Your task to perform on an android device: What's the weather going to be tomorrow? Image 0: 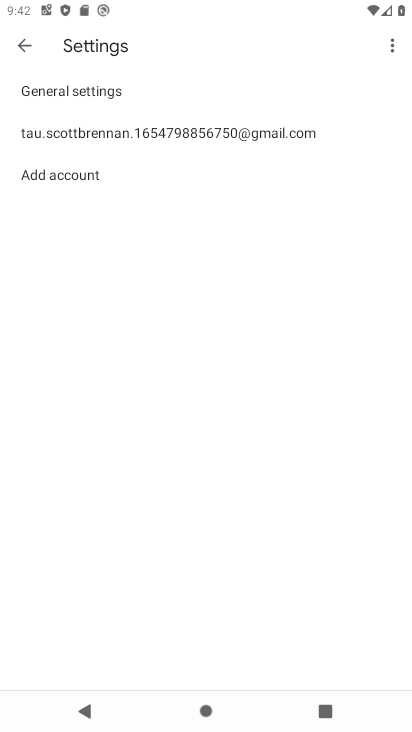
Step 0: press home button
Your task to perform on an android device: What's the weather going to be tomorrow? Image 1: 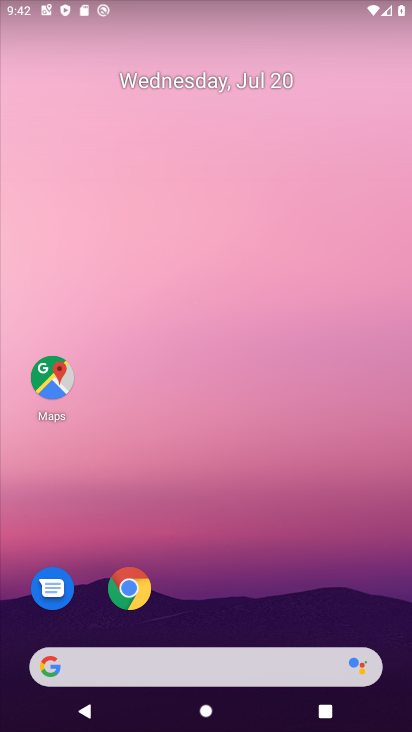
Step 1: click (43, 660)
Your task to perform on an android device: What's the weather going to be tomorrow? Image 2: 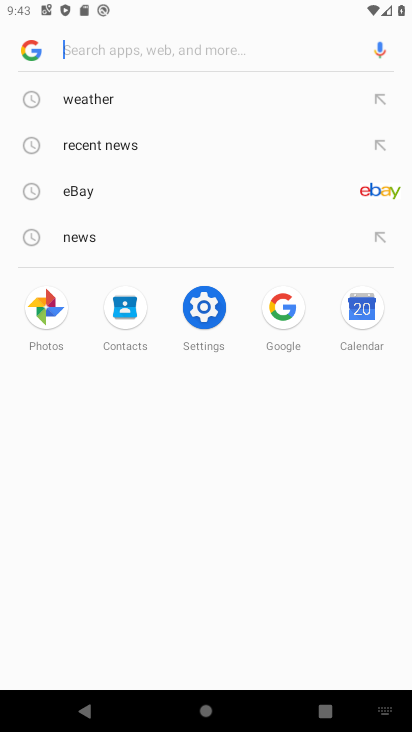
Step 2: type "What's the weather going to be tomorrow?"
Your task to perform on an android device: What's the weather going to be tomorrow? Image 3: 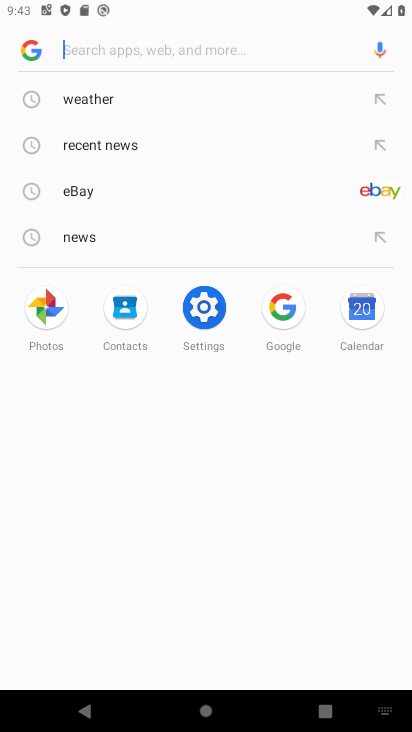
Step 3: click (73, 52)
Your task to perform on an android device: What's the weather going to be tomorrow? Image 4: 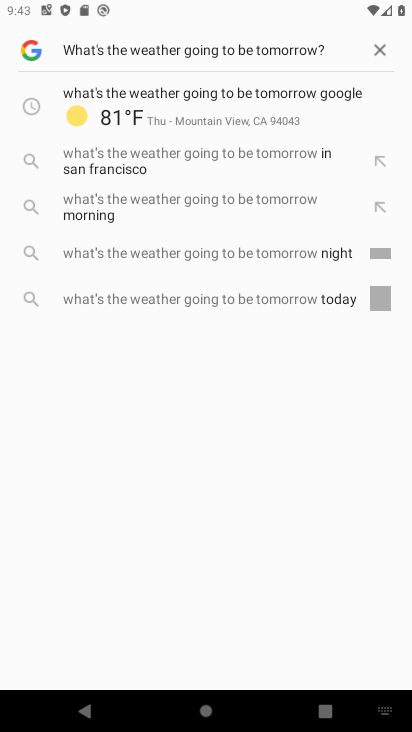
Step 4: press enter
Your task to perform on an android device: What's the weather going to be tomorrow? Image 5: 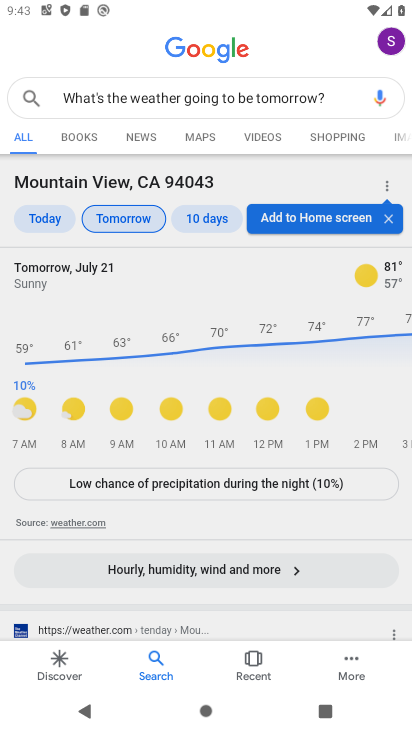
Step 5: task complete